Your task to perform on an android device: Clear all items from cart on ebay.com. Add "alienware area 51" to the cart on ebay.com Image 0: 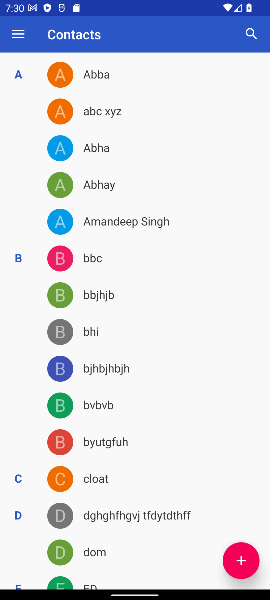
Step 0: press home button
Your task to perform on an android device: Clear all items from cart on ebay.com. Add "alienware area 51" to the cart on ebay.com Image 1: 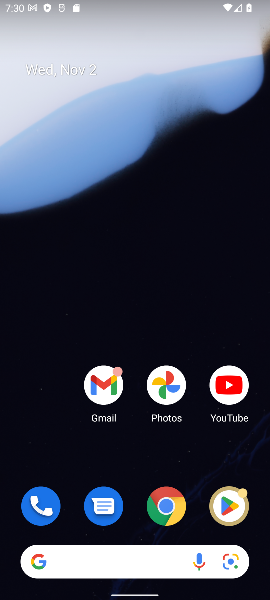
Step 1: task complete